Your task to perform on an android device: Go to battery settings Image 0: 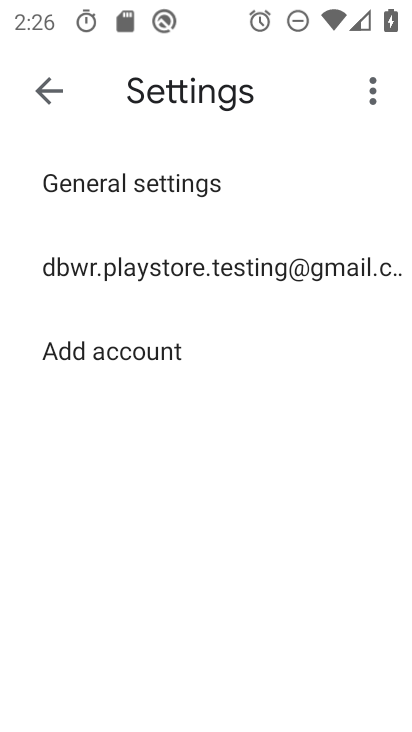
Step 0: press home button
Your task to perform on an android device: Go to battery settings Image 1: 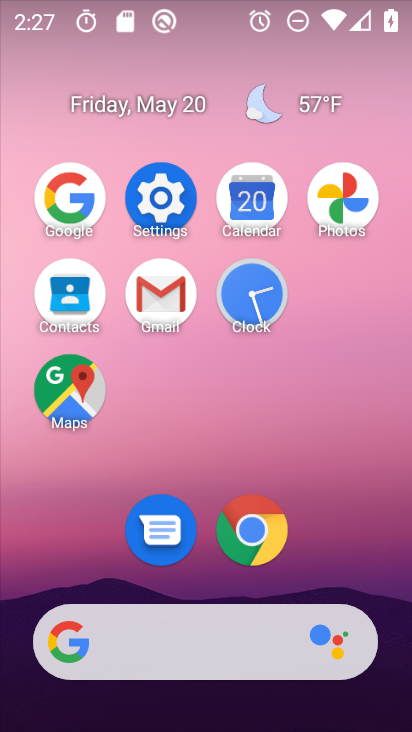
Step 1: click (150, 210)
Your task to perform on an android device: Go to battery settings Image 2: 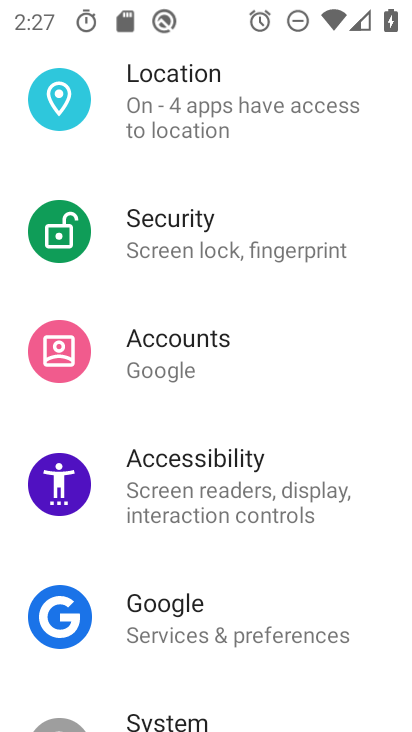
Step 2: drag from (272, 211) to (263, 639)
Your task to perform on an android device: Go to battery settings Image 3: 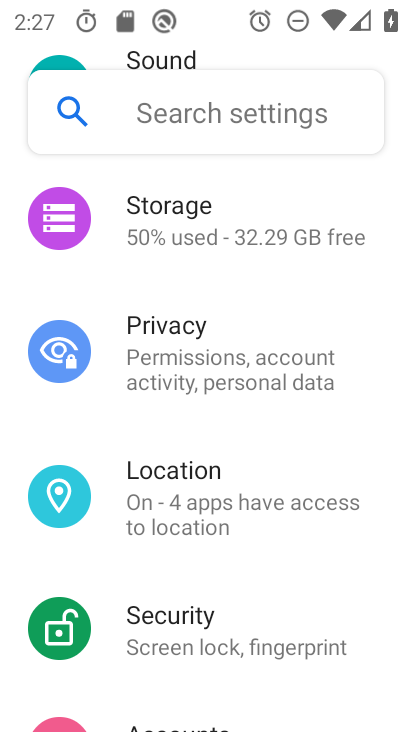
Step 3: drag from (255, 287) to (259, 710)
Your task to perform on an android device: Go to battery settings Image 4: 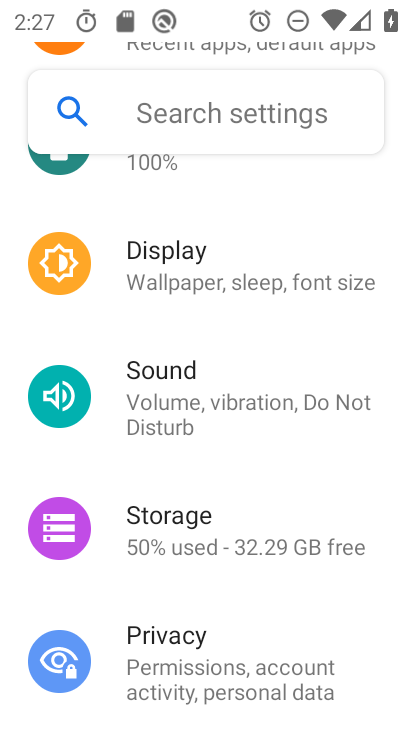
Step 4: drag from (270, 278) to (289, 715)
Your task to perform on an android device: Go to battery settings Image 5: 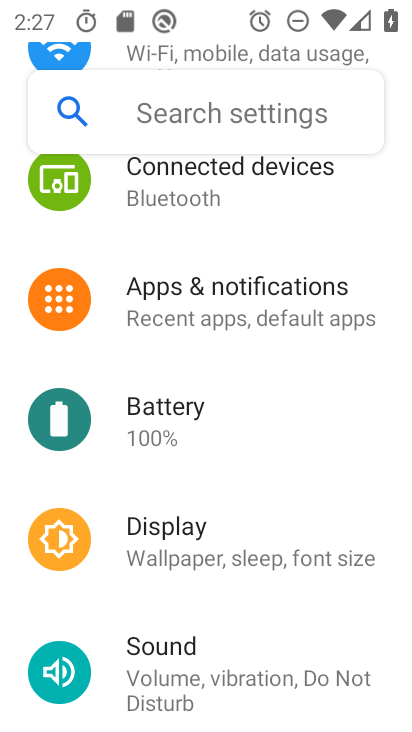
Step 5: click (254, 421)
Your task to perform on an android device: Go to battery settings Image 6: 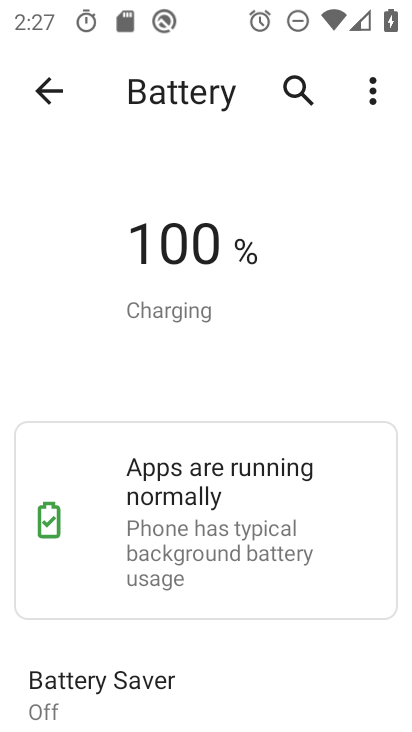
Step 6: task complete